Your task to perform on an android device: Go to Yahoo.com Image 0: 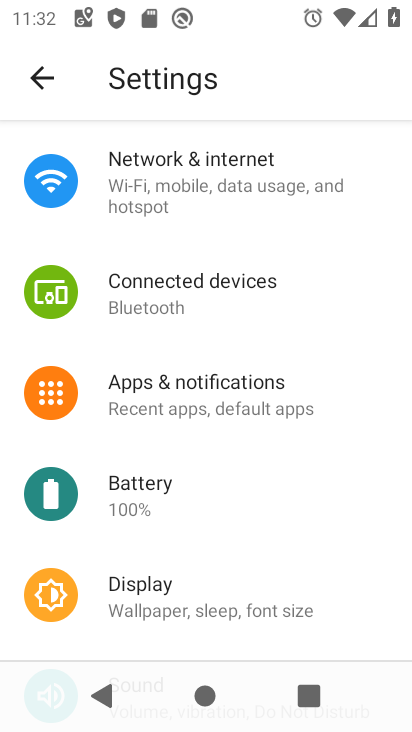
Step 0: press home button
Your task to perform on an android device: Go to Yahoo.com Image 1: 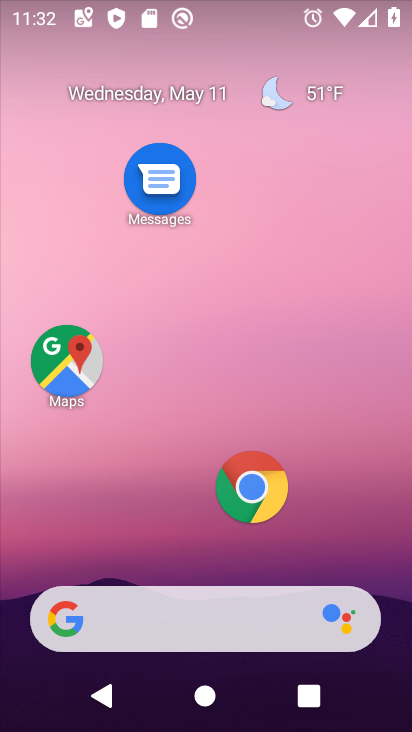
Step 1: click (248, 483)
Your task to perform on an android device: Go to Yahoo.com Image 2: 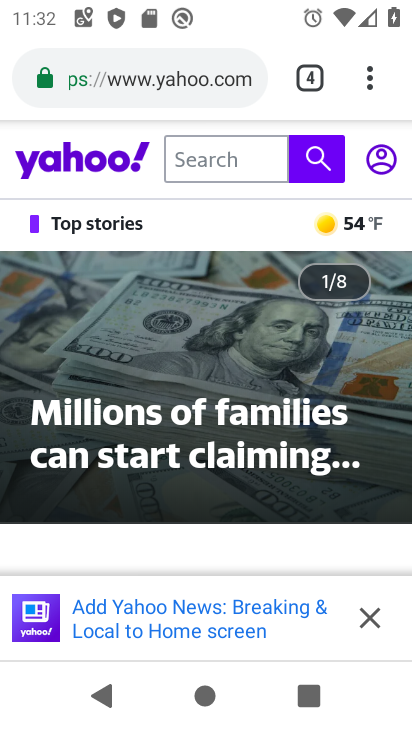
Step 2: task complete